Your task to perform on an android device: find photos in the google photos app Image 0: 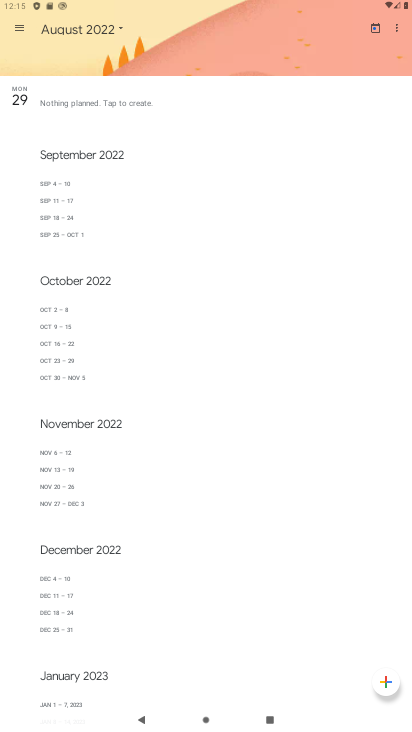
Step 0: press home button
Your task to perform on an android device: find photos in the google photos app Image 1: 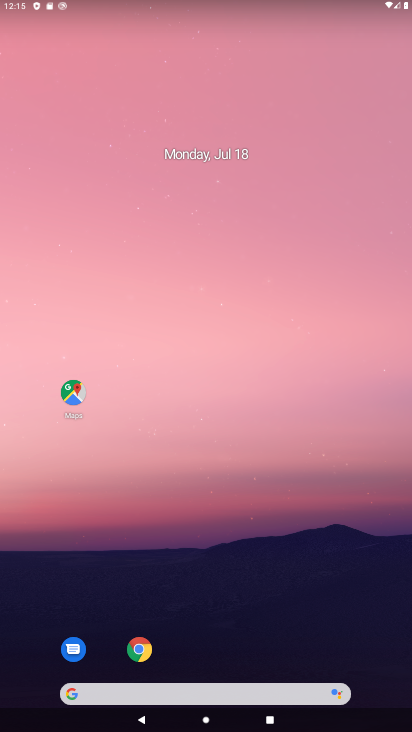
Step 1: drag from (29, 713) to (362, 8)
Your task to perform on an android device: find photos in the google photos app Image 2: 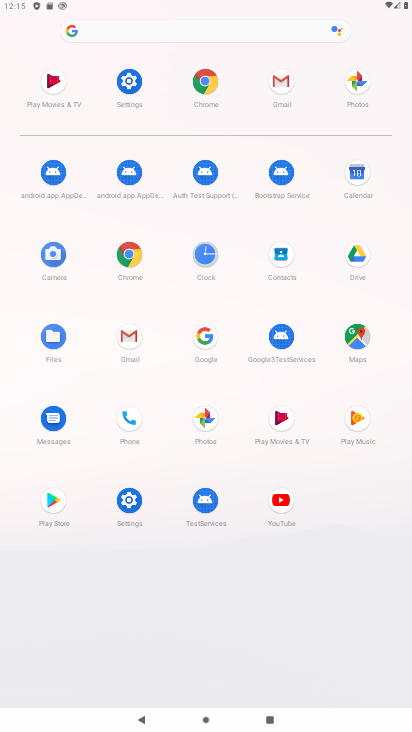
Step 2: click (201, 421)
Your task to perform on an android device: find photos in the google photos app Image 3: 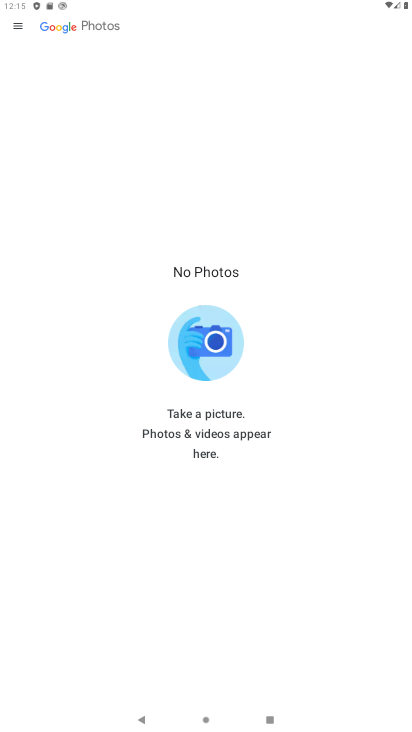
Step 3: click (34, 32)
Your task to perform on an android device: find photos in the google photos app Image 4: 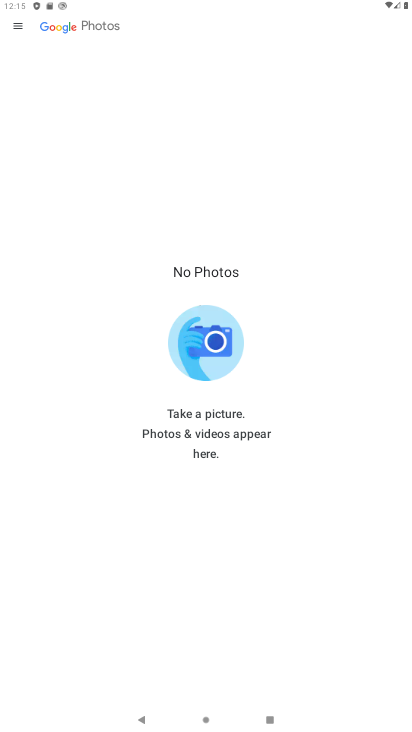
Step 4: click (27, 23)
Your task to perform on an android device: find photos in the google photos app Image 5: 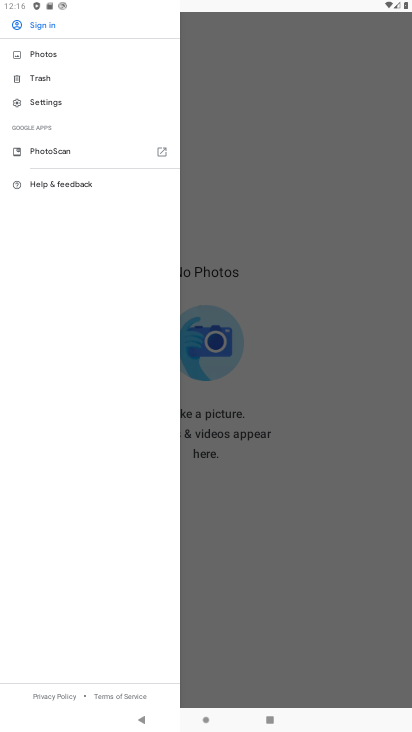
Step 5: click (88, 53)
Your task to perform on an android device: find photos in the google photos app Image 6: 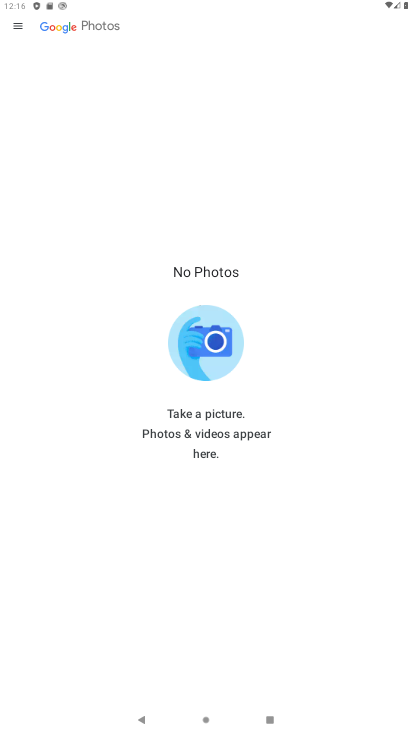
Step 6: task complete